Your task to perform on an android device: delete location history Image 0: 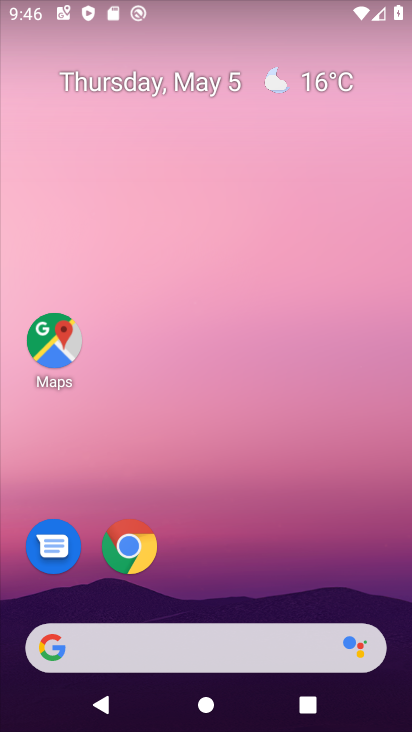
Step 0: drag from (242, 592) to (266, 142)
Your task to perform on an android device: delete location history Image 1: 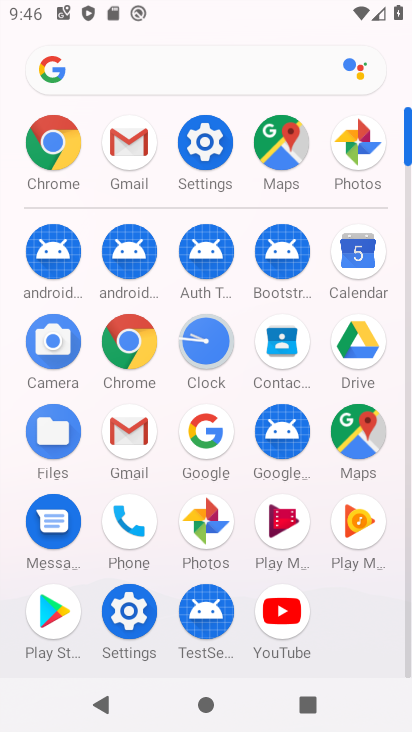
Step 1: click (291, 163)
Your task to perform on an android device: delete location history Image 2: 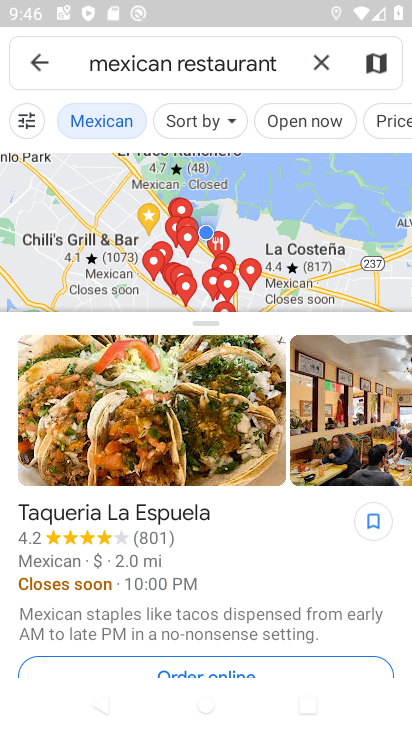
Step 2: click (45, 73)
Your task to perform on an android device: delete location history Image 3: 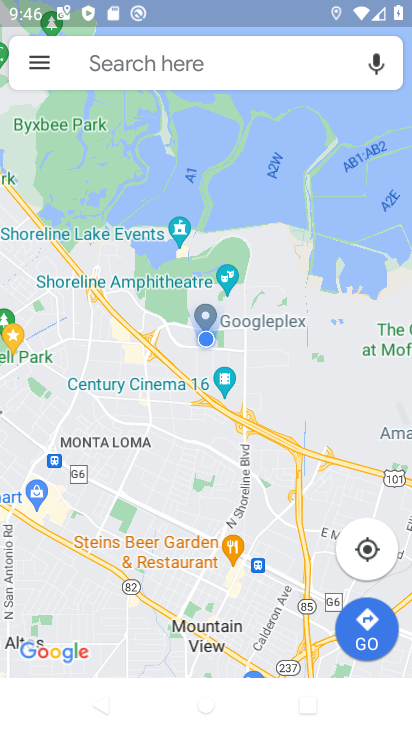
Step 3: click (41, 64)
Your task to perform on an android device: delete location history Image 4: 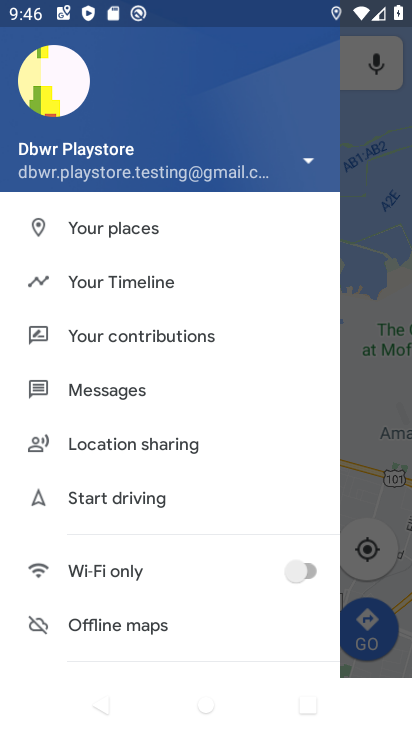
Step 4: drag from (147, 596) to (170, 426)
Your task to perform on an android device: delete location history Image 5: 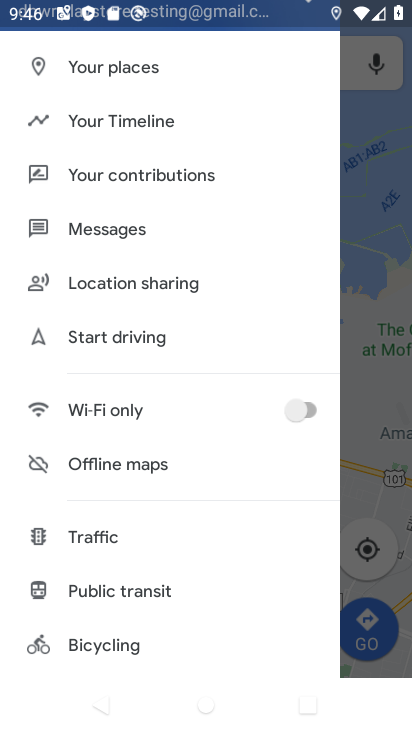
Step 5: click (135, 129)
Your task to perform on an android device: delete location history Image 6: 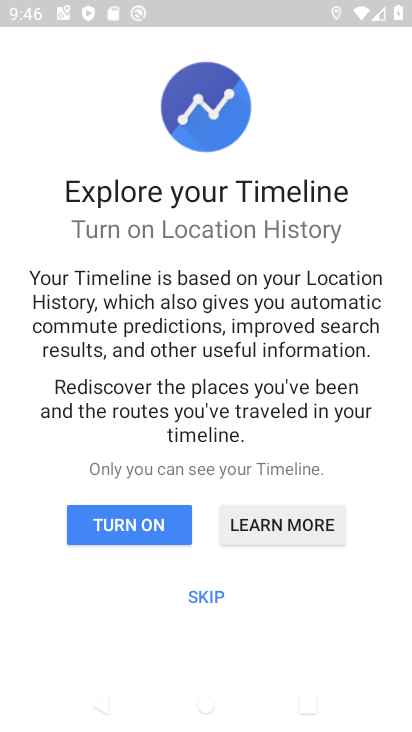
Step 6: click (218, 594)
Your task to perform on an android device: delete location history Image 7: 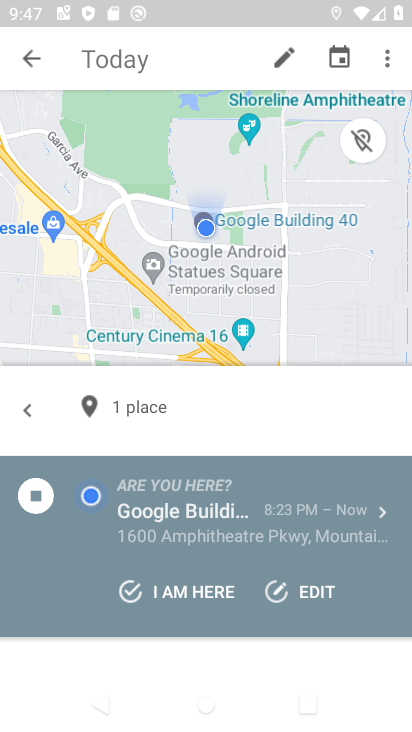
Step 7: click (379, 63)
Your task to perform on an android device: delete location history Image 8: 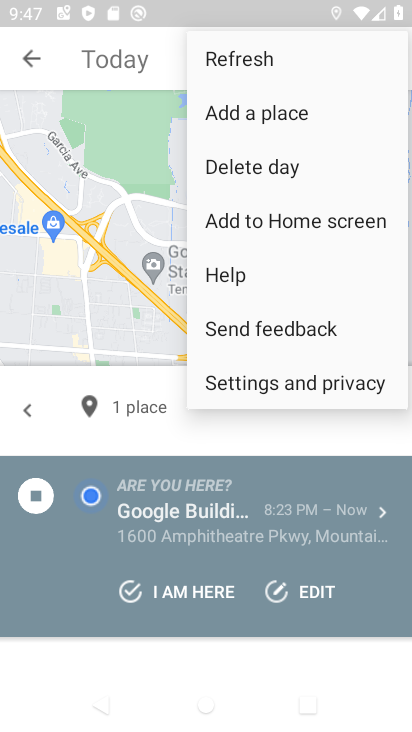
Step 8: click (253, 375)
Your task to perform on an android device: delete location history Image 9: 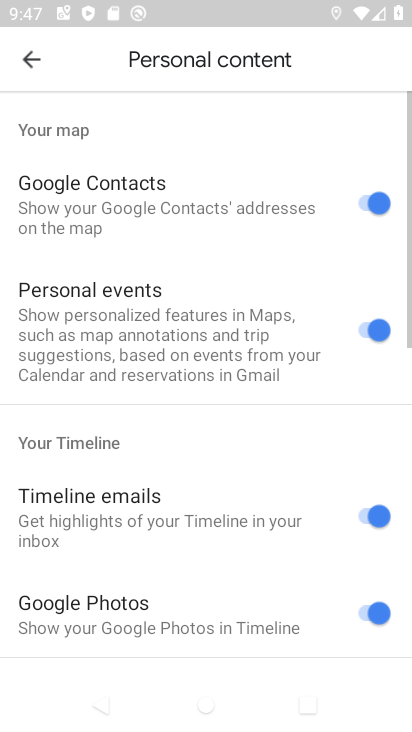
Step 9: drag from (170, 564) to (183, 387)
Your task to perform on an android device: delete location history Image 10: 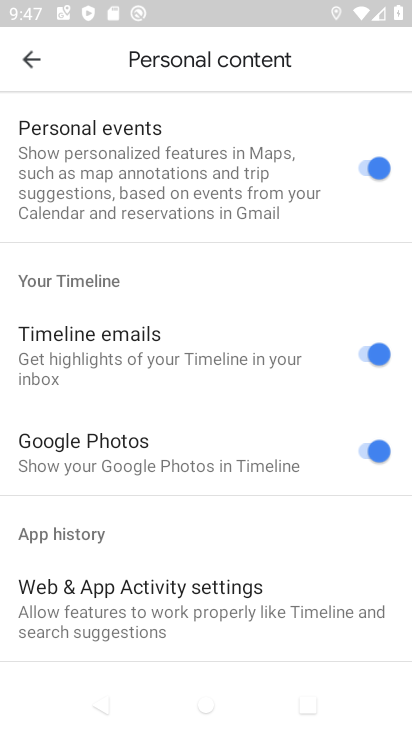
Step 10: drag from (205, 555) to (223, 407)
Your task to perform on an android device: delete location history Image 11: 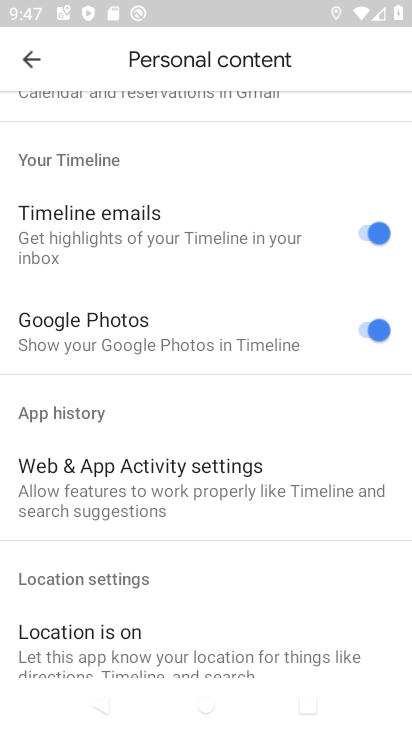
Step 11: drag from (218, 588) to (222, 472)
Your task to perform on an android device: delete location history Image 12: 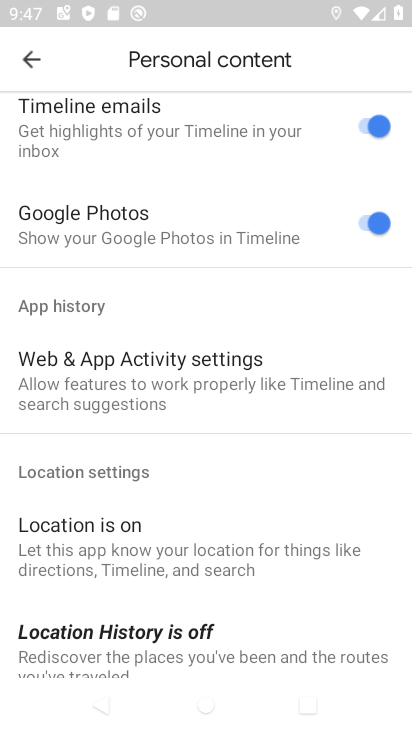
Step 12: drag from (243, 563) to (228, 437)
Your task to perform on an android device: delete location history Image 13: 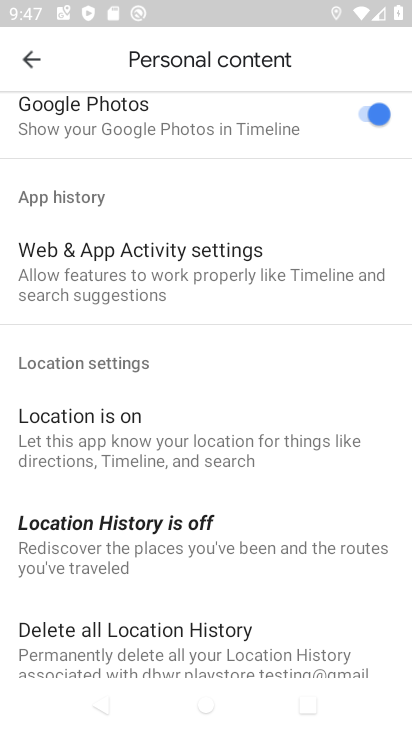
Step 13: click (165, 657)
Your task to perform on an android device: delete location history Image 14: 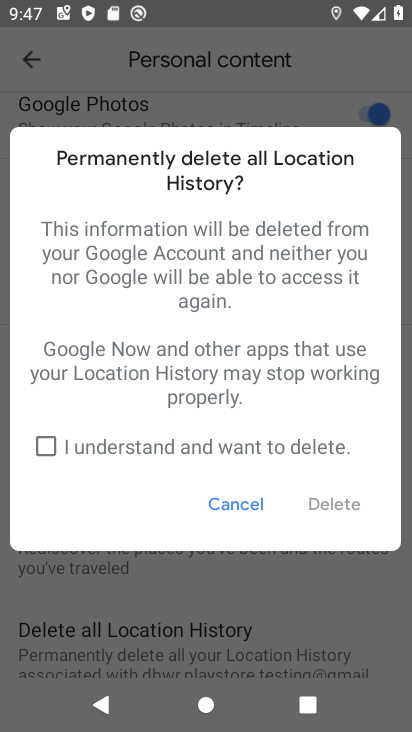
Step 14: click (63, 449)
Your task to perform on an android device: delete location history Image 15: 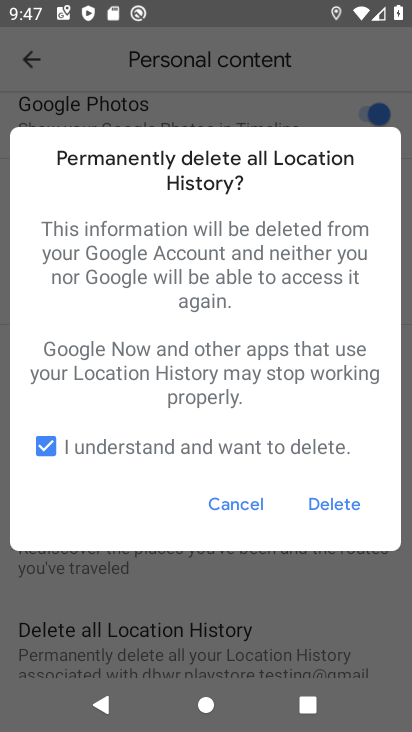
Step 15: click (306, 503)
Your task to perform on an android device: delete location history Image 16: 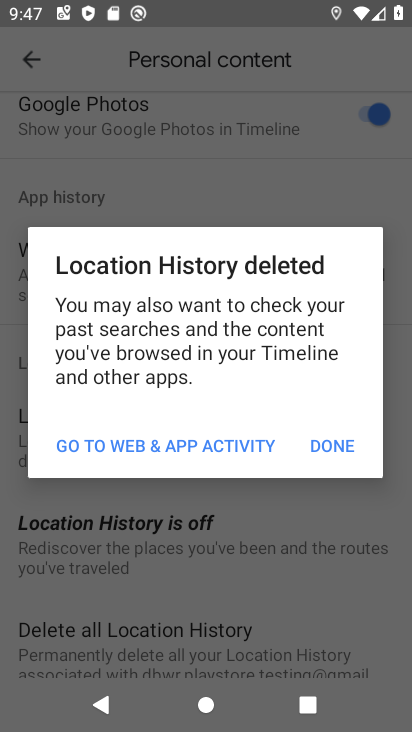
Step 16: click (339, 436)
Your task to perform on an android device: delete location history Image 17: 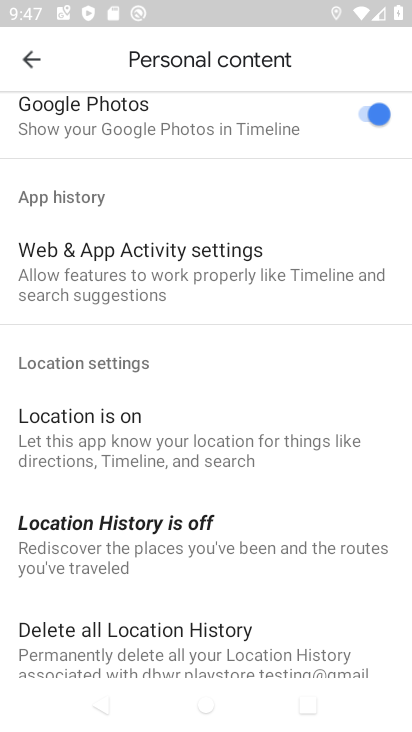
Step 17: task complete